Your task to perform on an android device: Open Google Chrome and click the shortcut for Amazon.com Image 0: 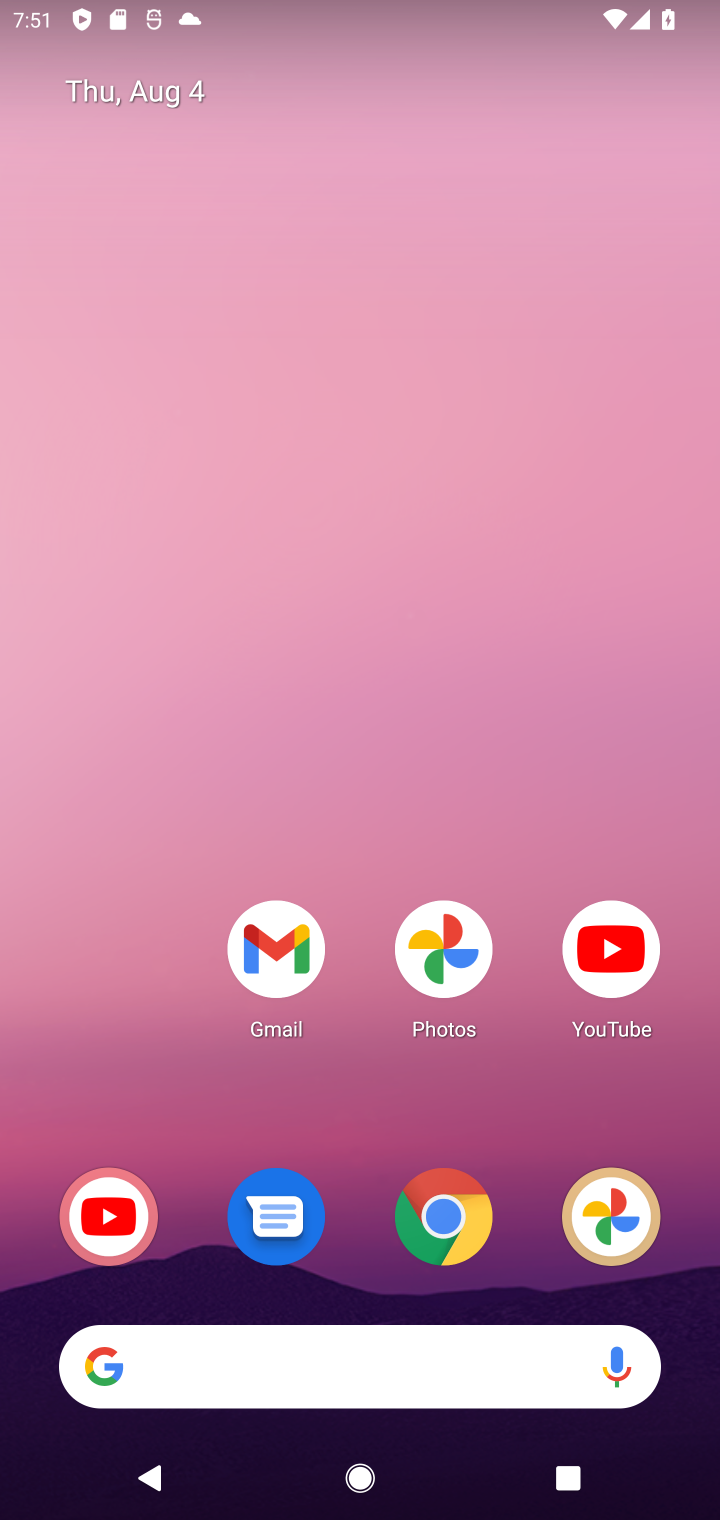
Step 0: click (456, 1216)
Your task to perform on an android device: Open Google Chrome and click the shortcut for Amazon.com Image 1: 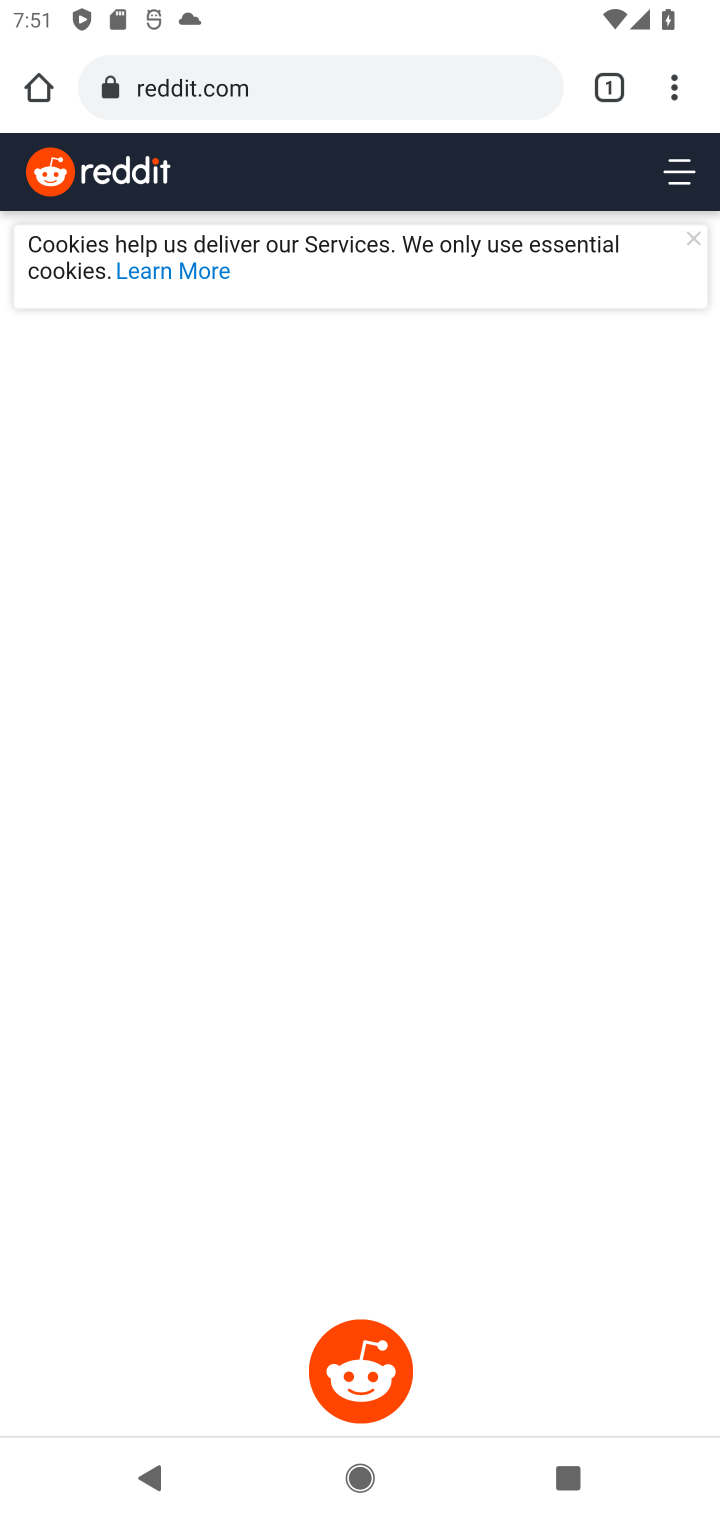
Step 1: click (671, 92)
Your task to perform on an android device: Open Google Chrome and click the shortcut for Amazon.com Image 2: 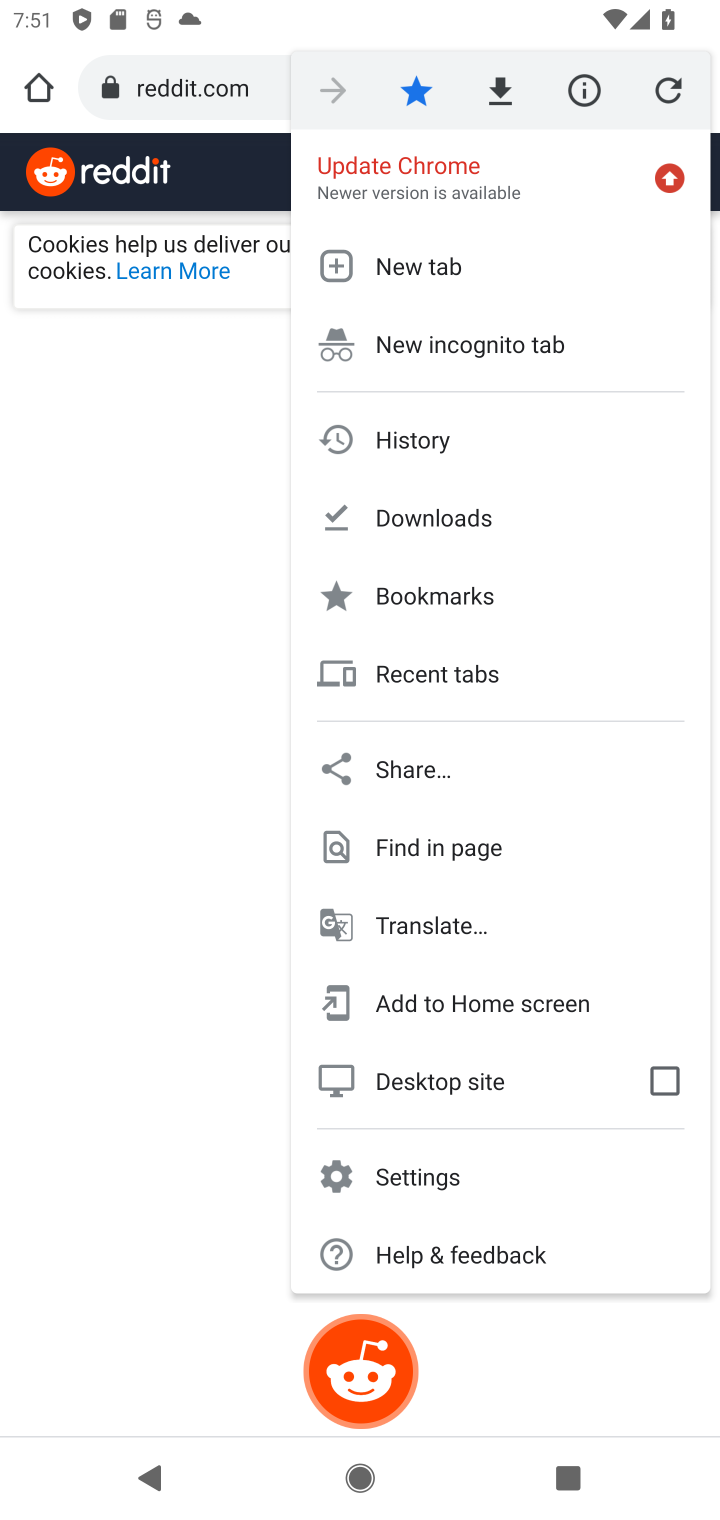
Step 2: click (394, 266)
Your task to perform on an android device: Open Google Chrome and click the shortcut for Amazon.com Image 3: 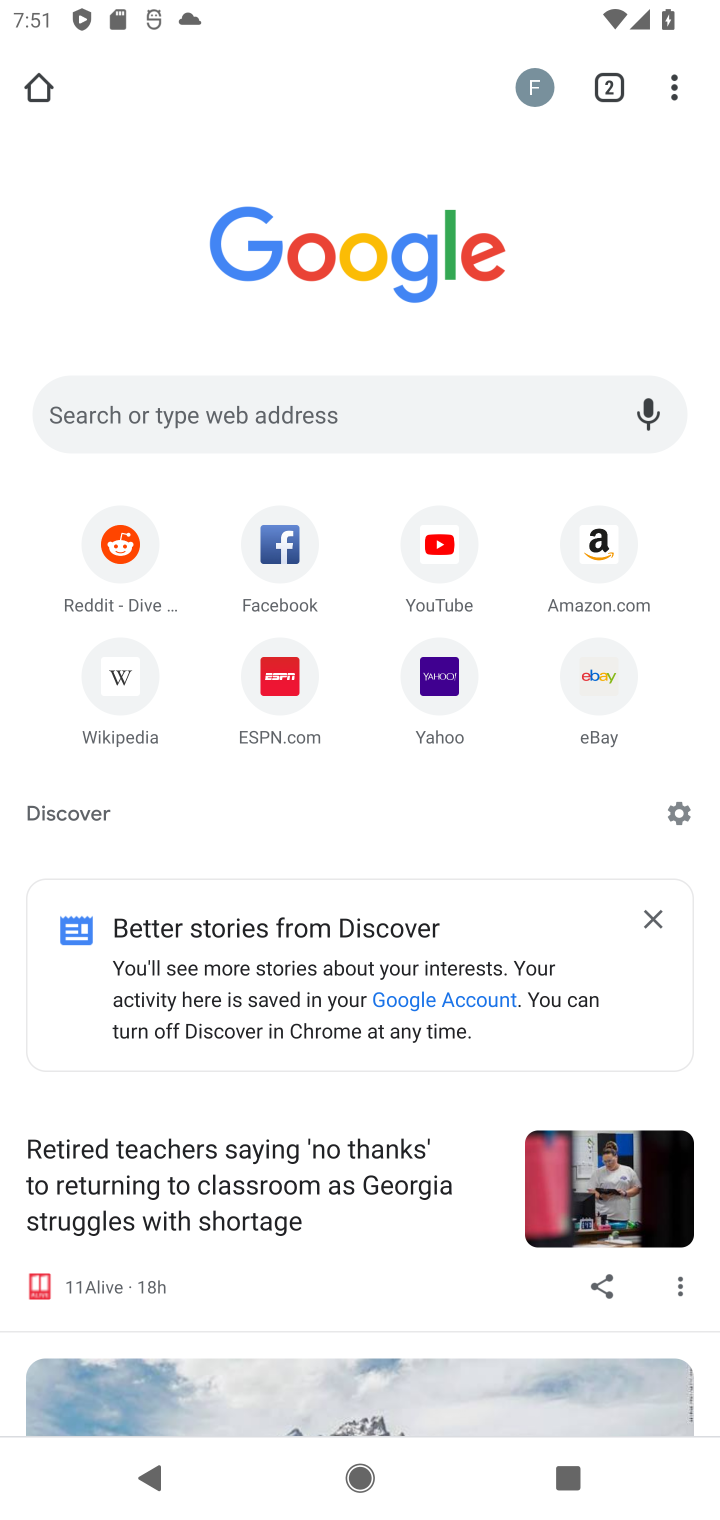
Step 3: click (600, 542)
Your task to perform on an android device: Open Google Chrome and click the shortcut for Amazon.com Image 4: 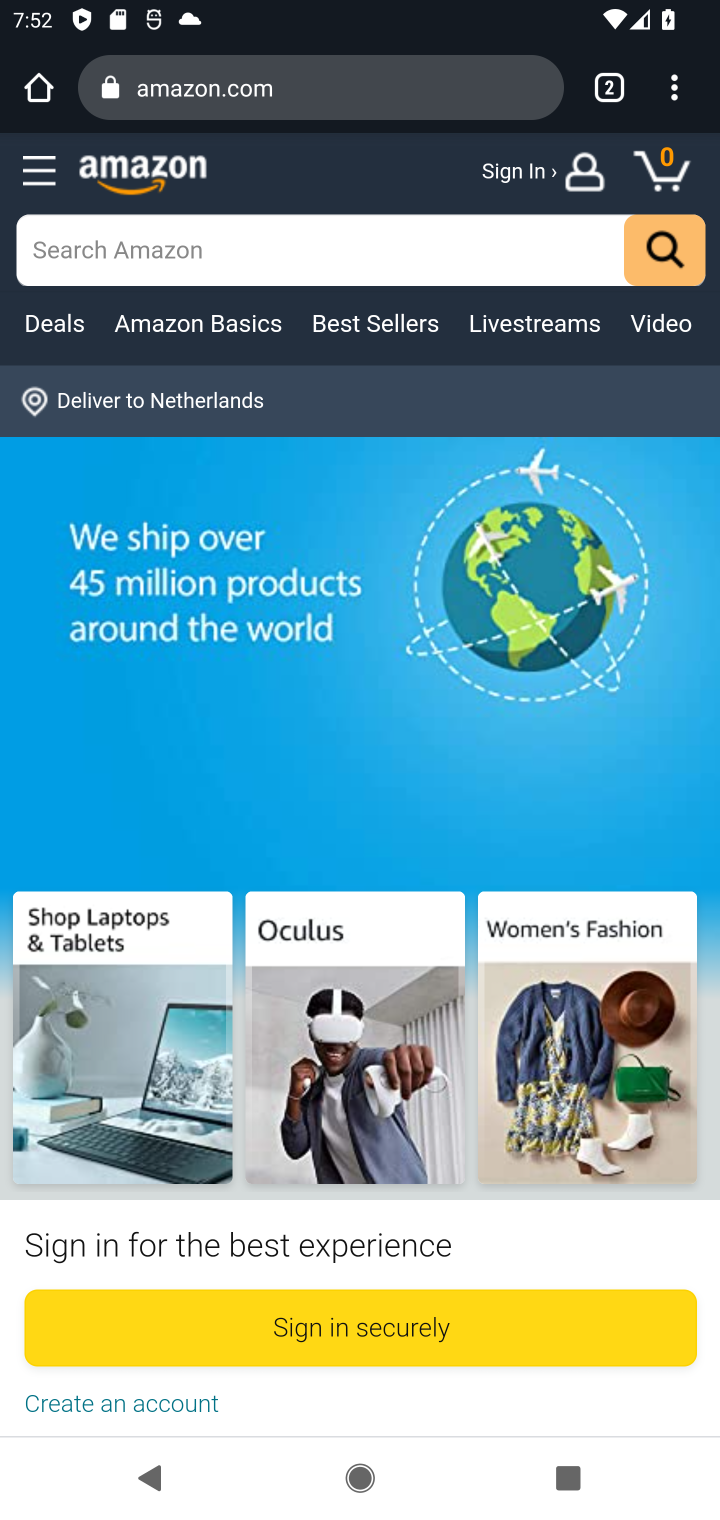
Step 4: task complete